Your task to perform on an android device: open a bookmark in the chrome app Image 0: 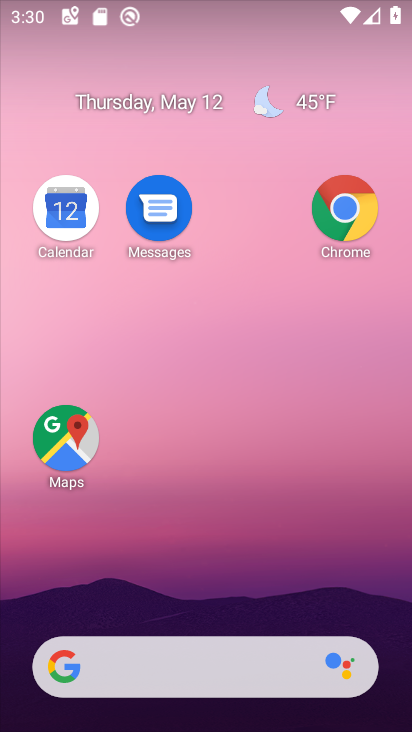
Step 0: drag from (183, 499) to (225, 250)
Your task to perform on an android device: open a bookmark in the chrome app Image 1: 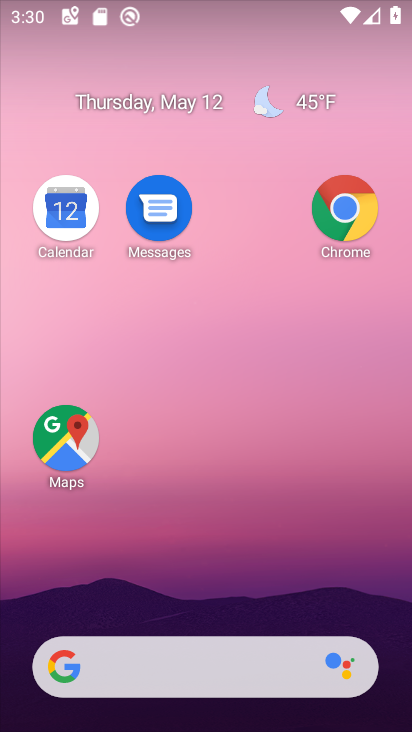
Step 1: click (354, 189)
Your task to perform on an android device: open a bookmark in the chrome app Image 2: 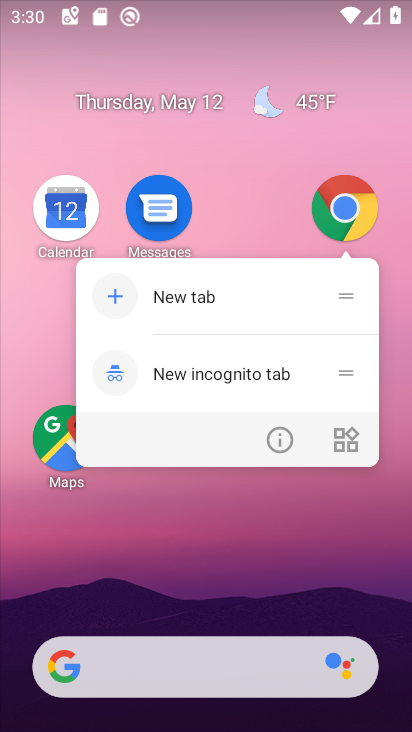
Step 2: click (271, 443)
Your task to perform on an android device: open a bookmark in the chrome app Image 3: 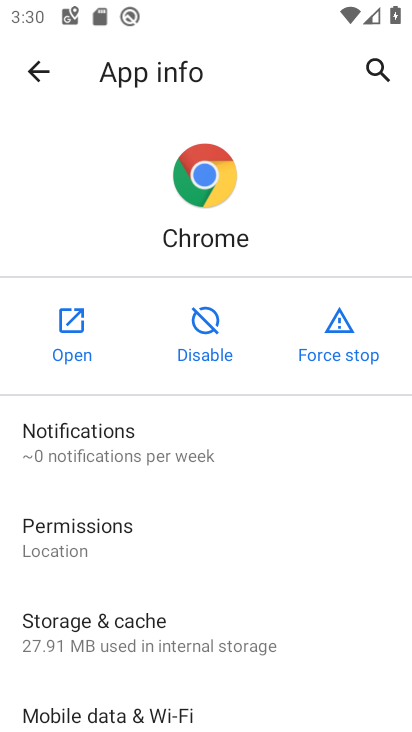
Step 3: click (81, 336)
Your task to perform on an android device: open a bookmark in the chrome app Image 4: 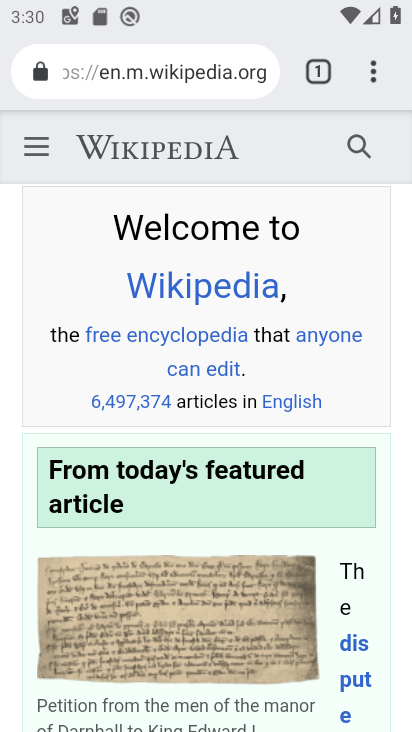
Step 4: drag from (219, 431) to (245, 290)
Your task to perform on an android device: open a bookmark in the chrome app Image 5: 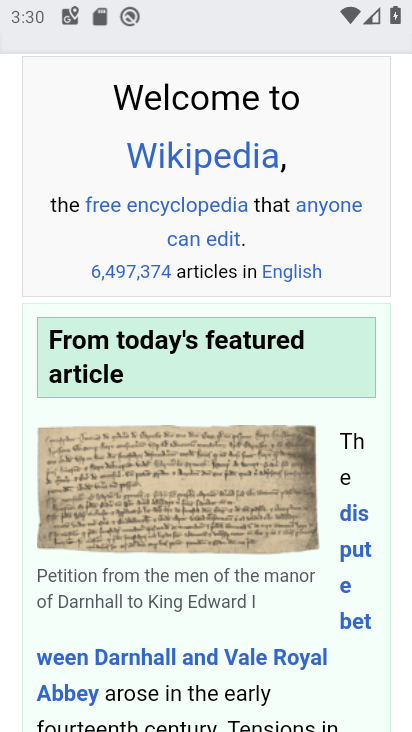
Step 5: drag from (304, 194) to (316, 342)
Your task to perform on an android device: open a bookmark in the chrome app Image 6: 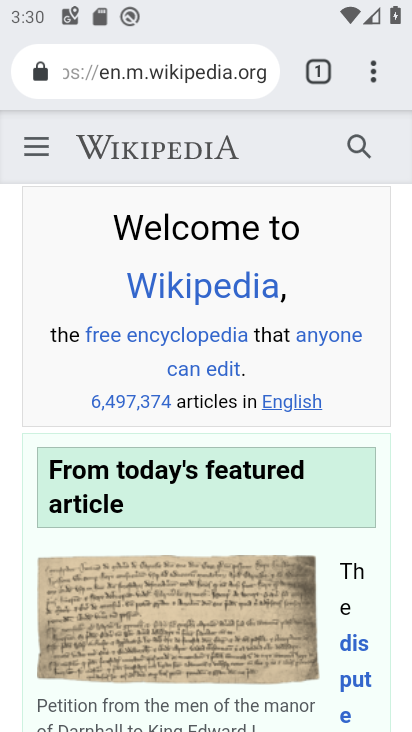
Step 6: click (384, 78)
Your task to perform on an android device: open a bookmark in the chrome app Image 7: 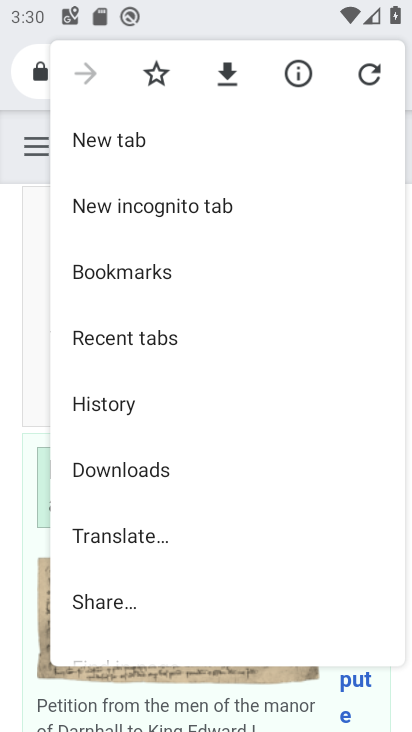
Step 7: click (151, 282)
Your task to perform on an android device: open a bookmark in the chrome app Image 8: 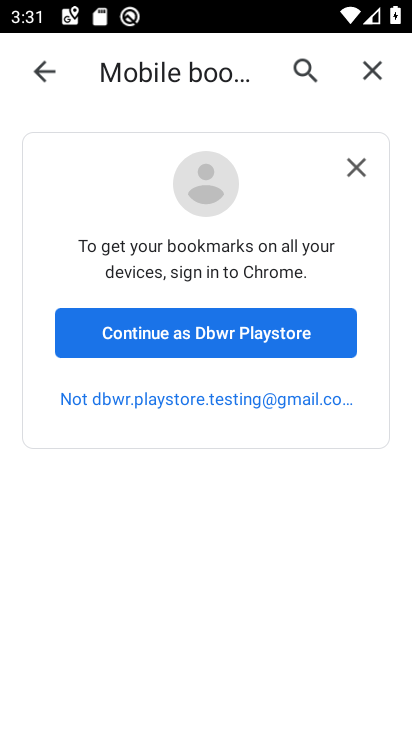
Step 8: task complete